Your task to perform on an android device: Open Google Maps and go to "Timeline" Image 0: 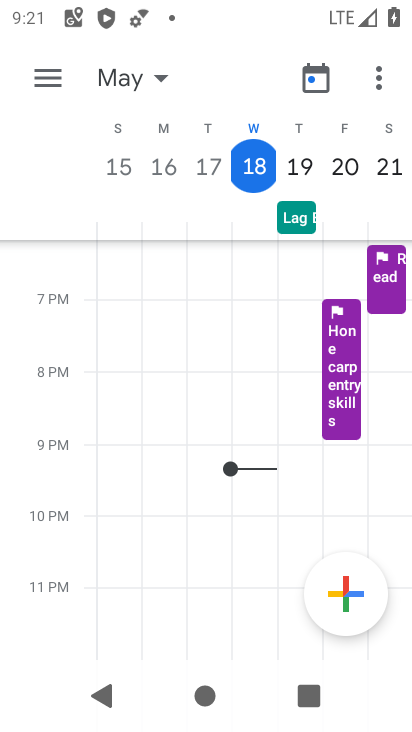
Step 0: press home button
Your task to perform on an android device: Open Google Maps and go to "Timeline" Image 1: 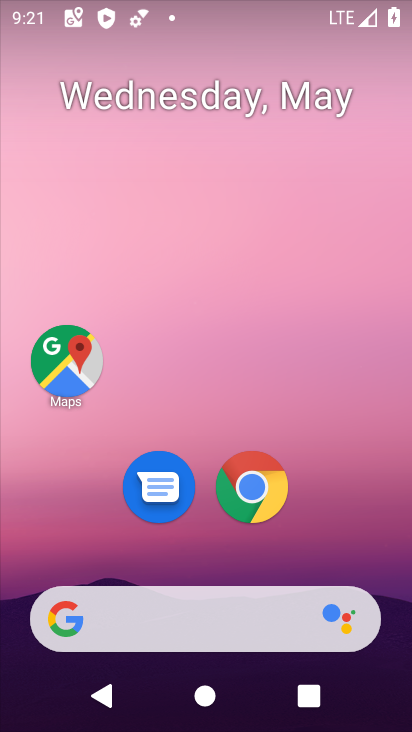
Step 1: click (60, 367)
Your task to perform on an android device: Open Google Maps and go to "Timeline" Image 2: 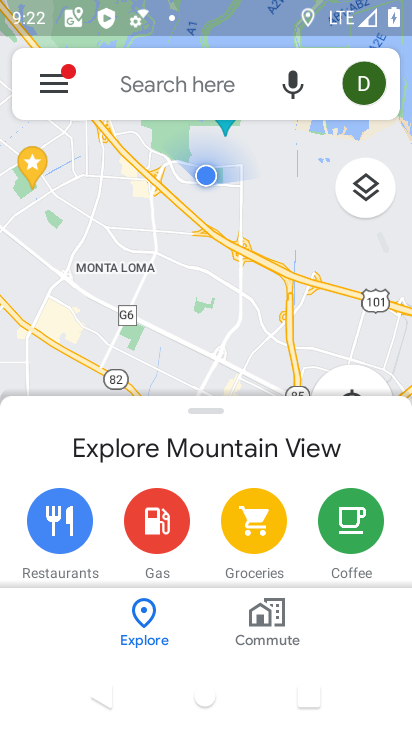
Step 2: click (56, 86)
Your task to perform on an android device: Open Google Maps and go to "Timeline" Image 3: 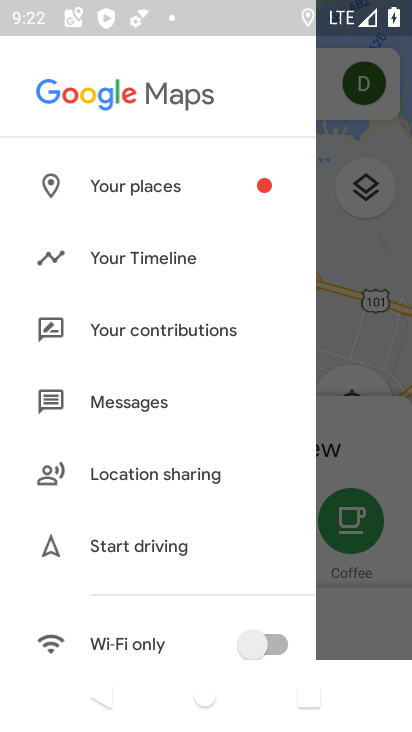
Step 3: click (151, 249)
Your task to perform on an android device: Open Google Maps and go to "Timeline" Image 4: 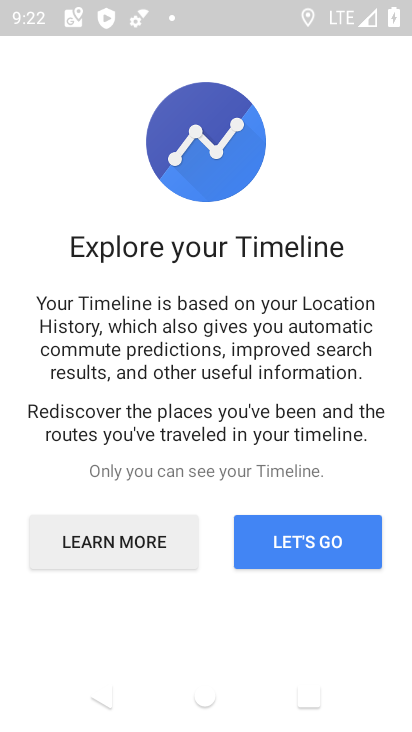
Step 4: task complete